Your task to perform on an android device: turn on the 12-hour format for clock Image 0: 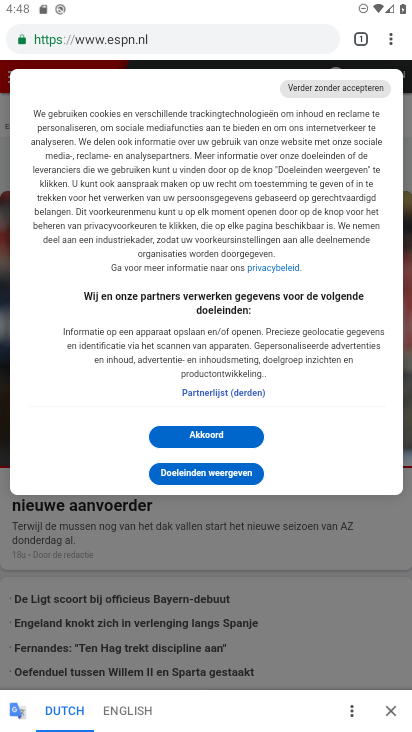
Step 0: press home button
Your task to perform on an android device: turn on the 12-hour format for clock Image 1: 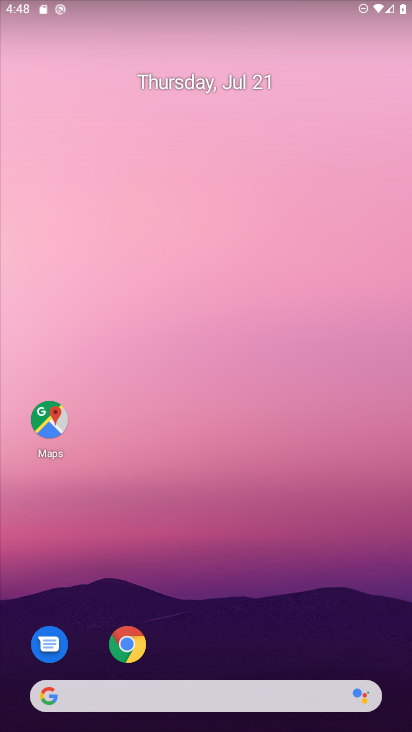
Step 1: drag from (188, 606) to (168, 92)
Your task to perform on an android device: turn on the 12-hour format for clock Image 2: 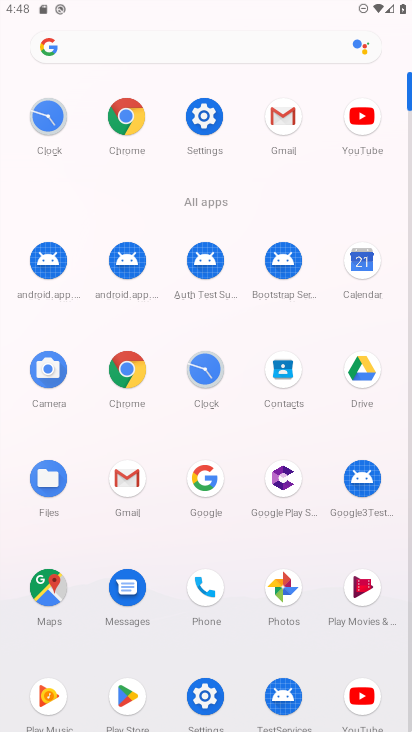
Step 2: click (197, 364)
Your task to perform on an android device: turn on the 12-hour format for clock Image 3: 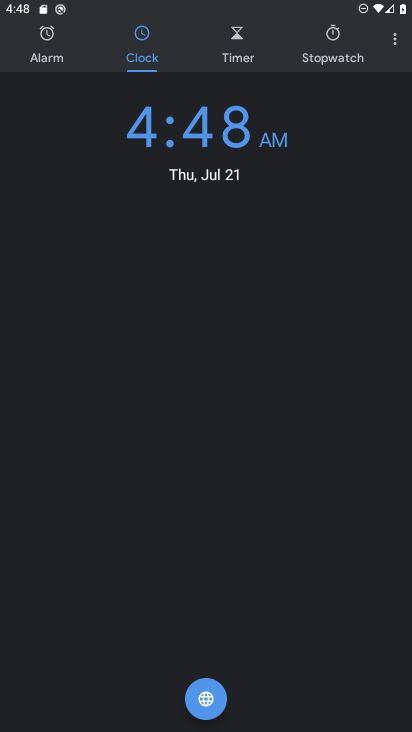
Step 3: click (395, 43)
Your task to perform on an android device: turn on the 12-hour format for clock Image 4: 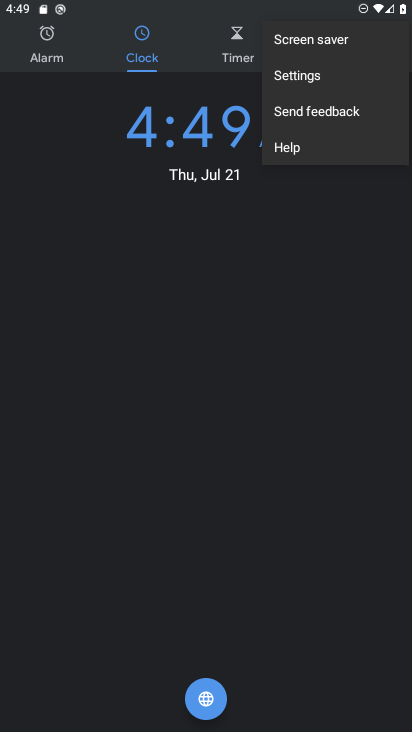
Step 4: click (317, 75)
Your task to perform on an android device: turn on the 12-hour format for clock Image 5: 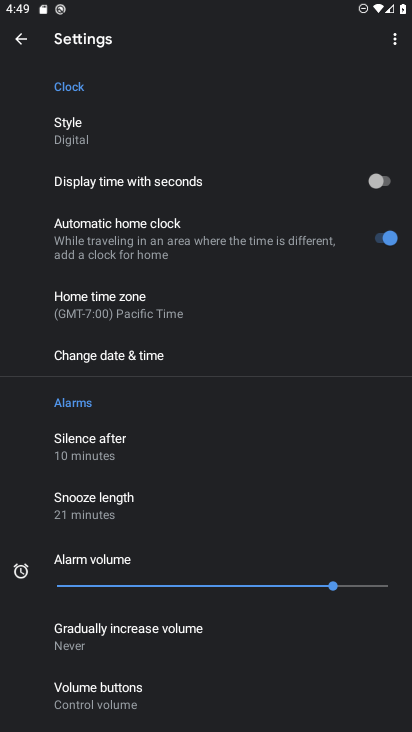
Step 5: click (168, 365)
Your task to perform on an android device: turn on the 12-hour format for clock Image 6: 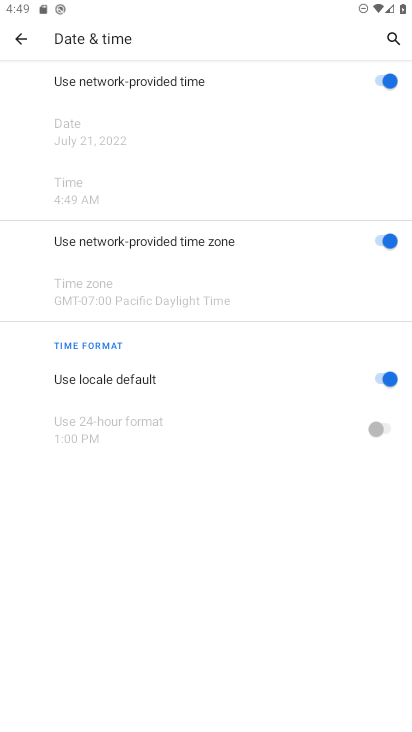
Step 6: task complete